Your task to perform on an android device: Go to wifi settings Image 0: 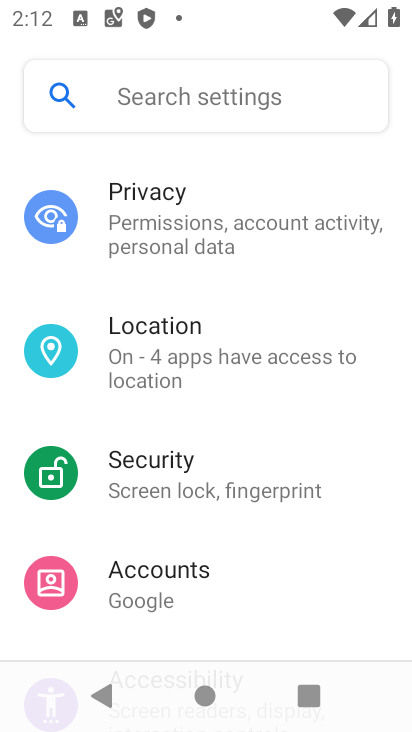
Step 0: drag from (205, 202) to (244, 525)
Your task to perform on an android device: Go to wifi settings Image 1: 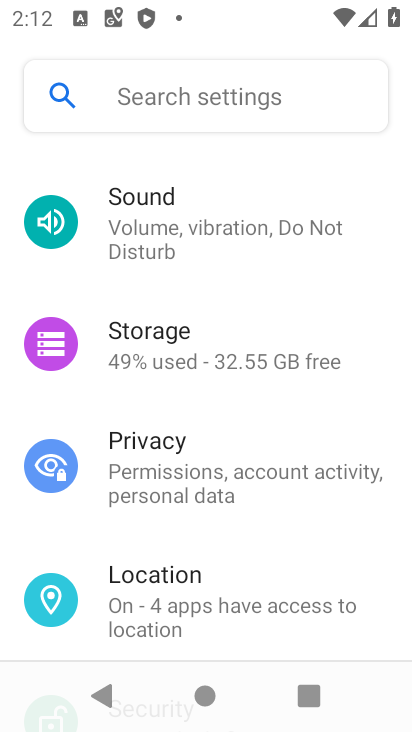
Step 1: drag from (242, 178) to (323, 545)
Your task to perform on an android device: Go to wifi settings Image 2: 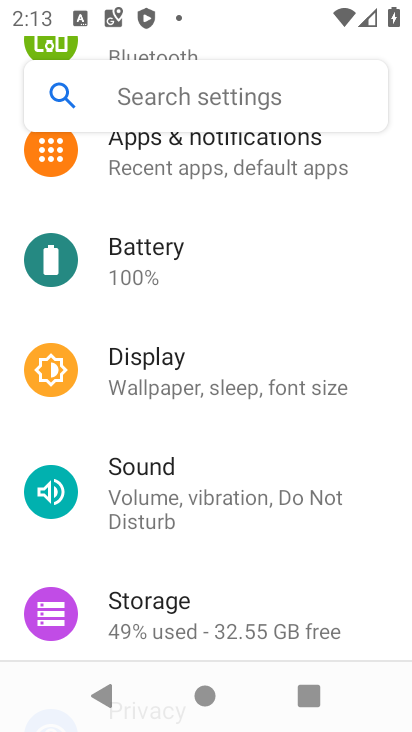
Step 2: drag from (335, 187) to (295, 548)
Your task to perform on an android device: Go to wifi settings Image 3: 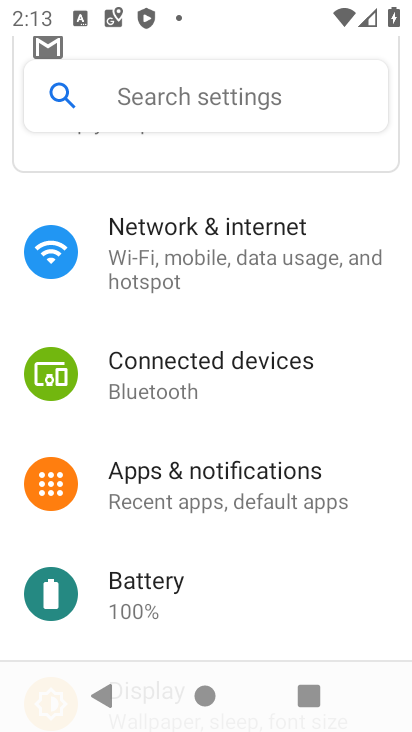
Step 3: click (169, 231)
Your task to perform on an android device: Go to wifi settings Image 4: 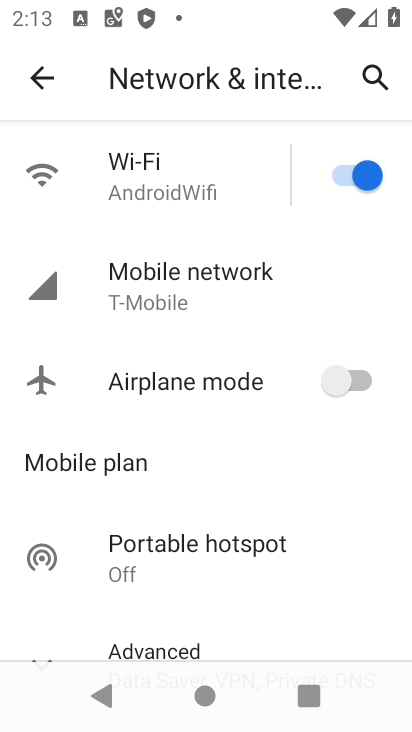
Step 4: click (52, 163)
Your task to perform on an android device: Go to wifi settings Image 5: 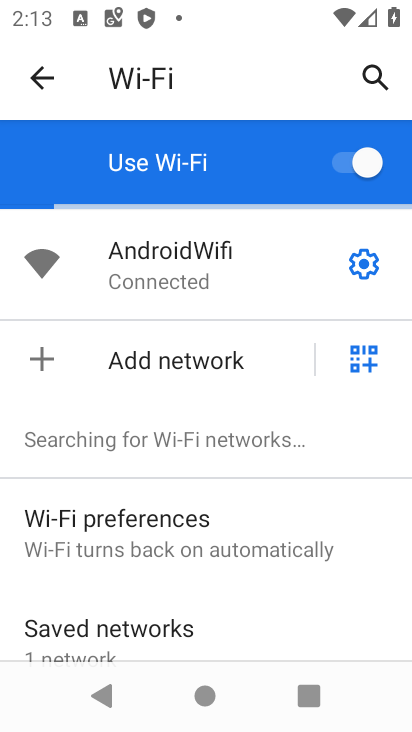
Step 5: click (368, 273)
Your task to perform on an android device: Go to wifi settings Image 6: 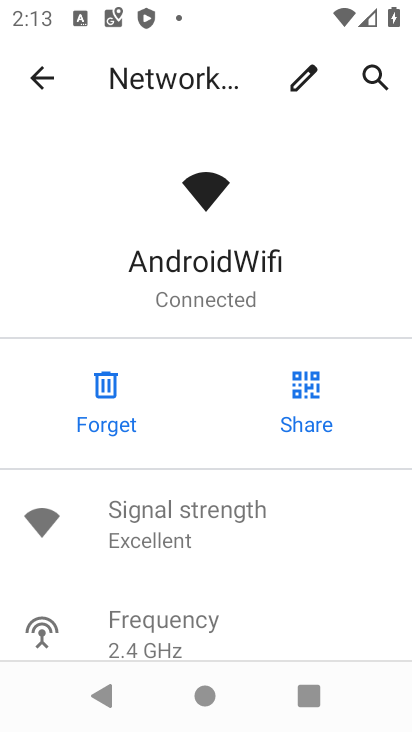
Step 6: task complete